Your task to perform on an android device: open a new tab in the chrome app Image 0: 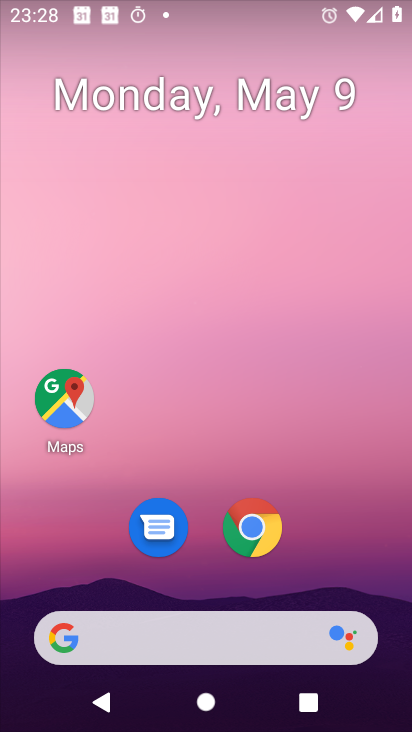
Step 0: click (257, 525)
Your task to perform on an android device: open a new tab in the chrome app Image 1: 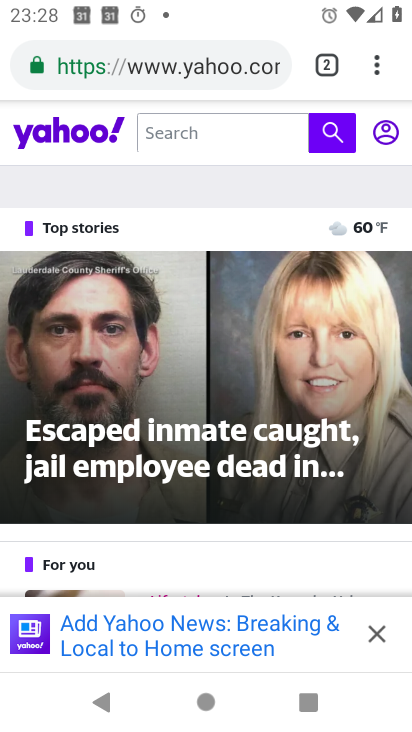
Step 1: click (324, 69)
Your task to perform on an android device: open a new tab in the chrome app Image 2: 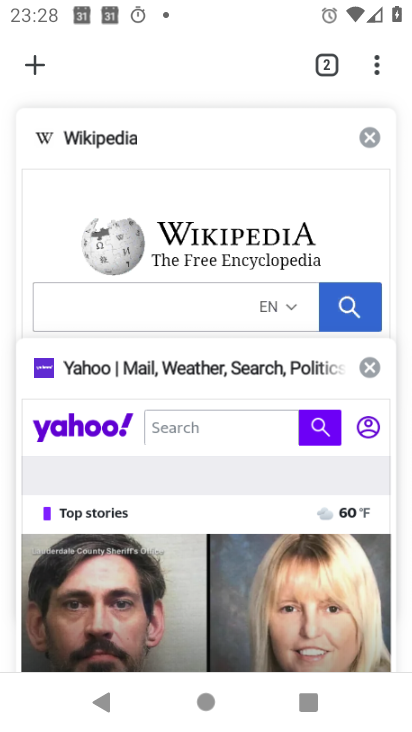
Step 2: click (38, 69)
Your task to perform on an android device: open a new tab in the chrome app Image 3: 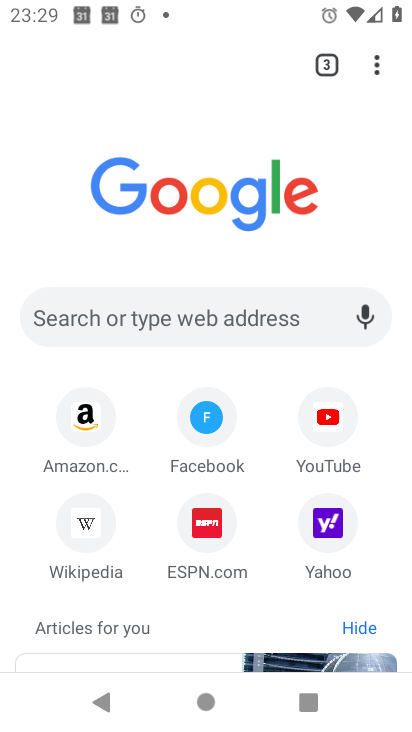
Step 3: task complete